Your task to perform on an android device: Search for the best rated mattress topper on Target. Image 0: 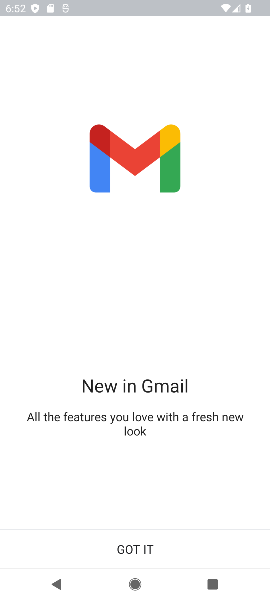
Step 0: press home button
Your task to perform on an android device: Search for the best rated mattress topper on Target. Image 1: 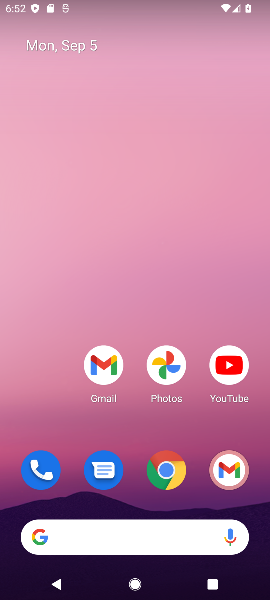
Step 1: click (164, 536)
Your task to perform on an android device: Search for the best rated mattress topper on Target. Image 2: 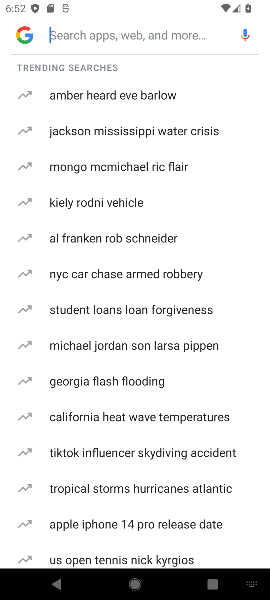
Step 2: type "target"
Your task to perform on an android device: Search for the best rated mattress topper on Target. Image 3: 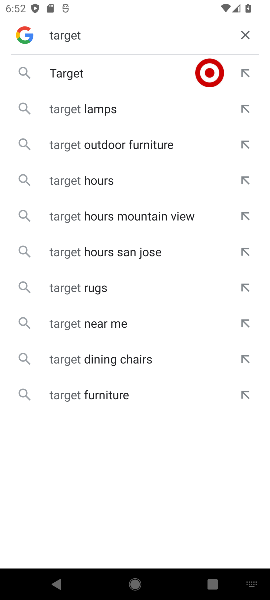
Step 3: click (88, 75)
Your task to perform on an android device: Search for the best rated mattress topper on Target. Image 4: 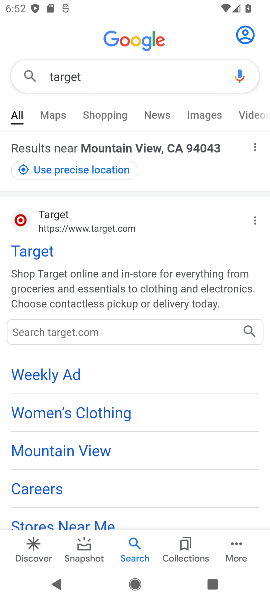
Step 4: click (45, 248)
Your task to perform on an android device: Search for the best rated mattress topper on Target. Image 5: 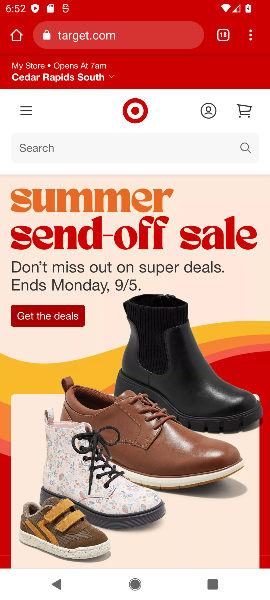
Step 5: click (115, 142)
Your task to perform on an android device: Search for the best rated mattress topper on Target. Image 6: 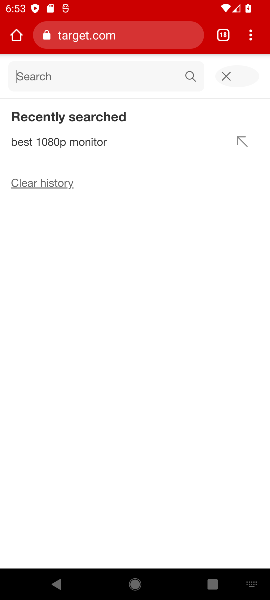
Step 6: type "best rated mattress topper"
Your task to perform on an android device: Search for the best rated mattress topper on Target. Image 7: 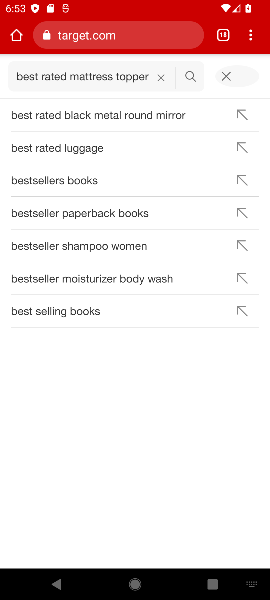
Step 7: click (187, 71)
Your task to perform on an android device: Search for the best rated mattress topper on Target. Image 8: 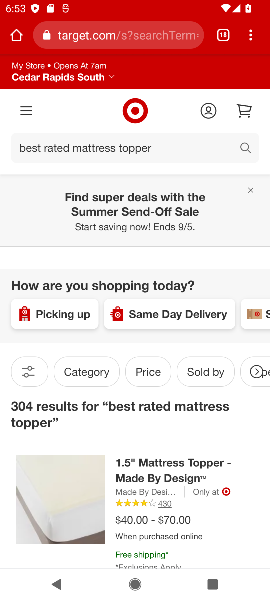
Step 8: task complete